Your task to perform on an android device: set default search engine in the chrome app Image 0: 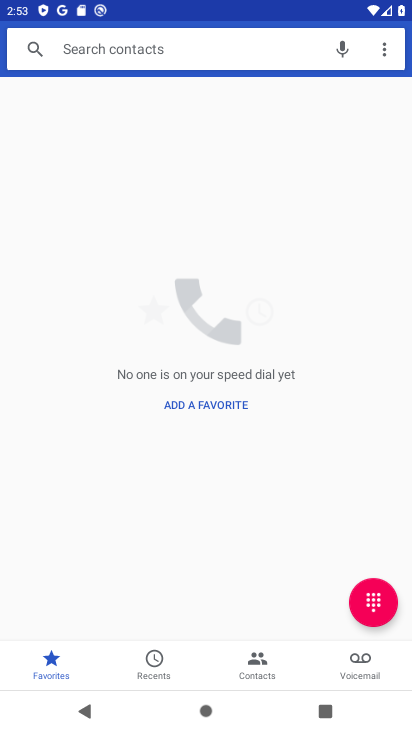
Step 0: press home button
Your task to perform on an android device: set default search engine in the chrome app Image 1: 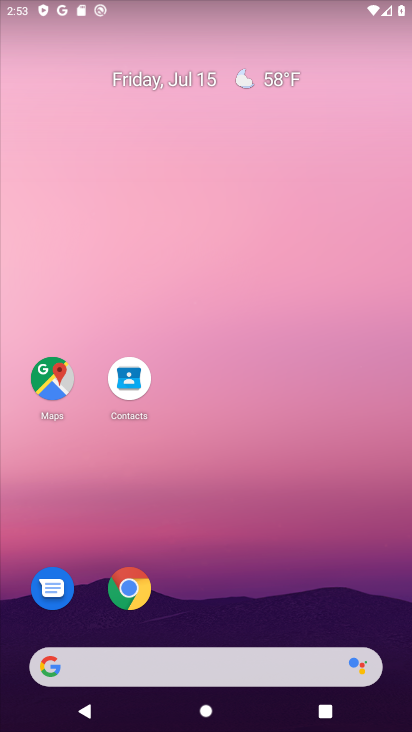
Step 1: click (137, 573)
Your task to perform on an android device: set default search engine in the chrome app Image 2: 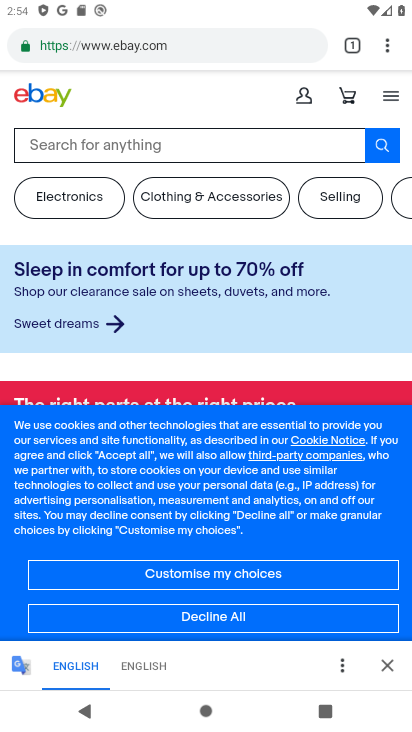
Step 2: click (388, 48)
Your task to perform on an android device: set default search engine in the chrome app Image 3: 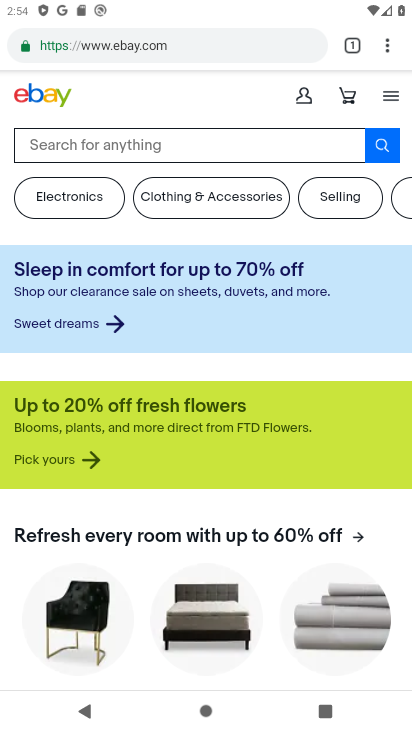
Step 3: click (380, 60)
Your task to perform on an android device: set default search engine in the chrome app Image 4: 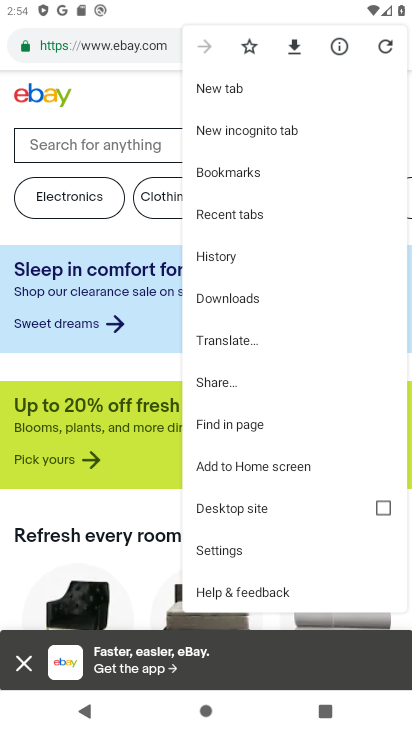
Step 4: click (273, 546)
Your task to perform on an android device: set default search engine in the chrome app Image 5: 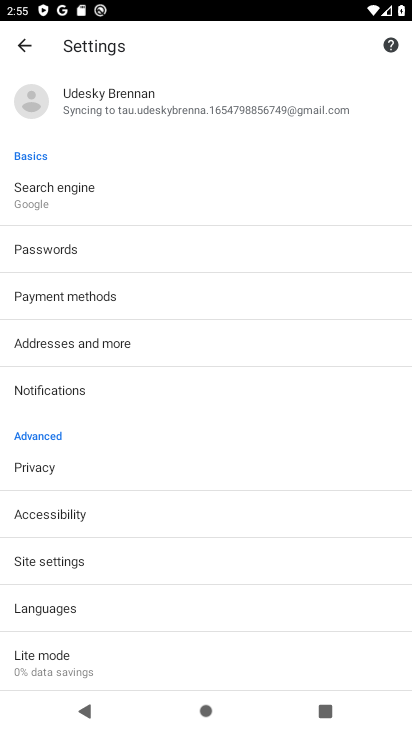
Step 5: click (27, 206)
Your task to perform on an android device: set default search engine in the chrome app Image 6: 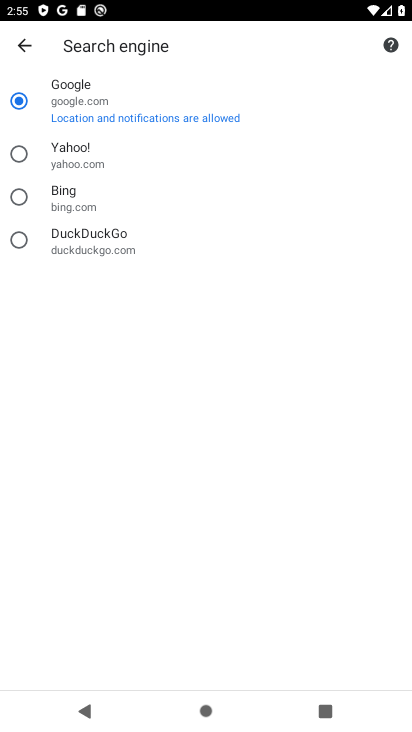
Step 6: click (116, 153)
Your task to perform on an android device: set default search engine in the chrome app Image 7: 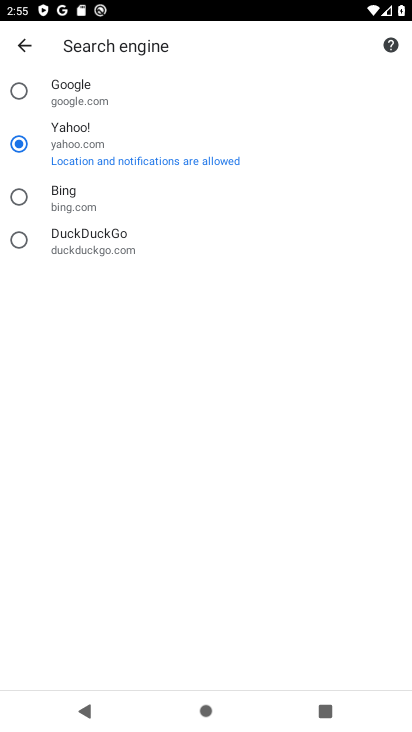
Step 7: task complete